Your task to perform on an android device: all mails in gmail Image 0: 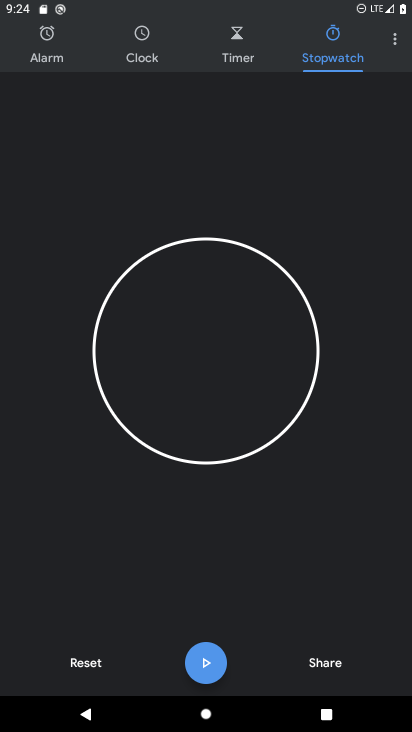
Step 0: press home button
Your task to perform on an android device: all mails in gmail Image 1: 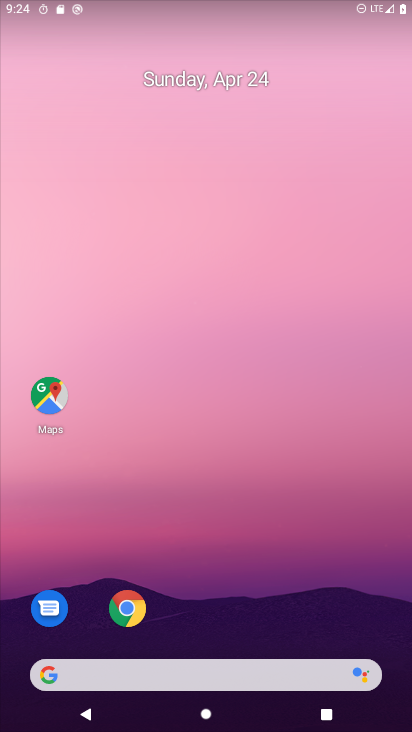
Step 1: drag from (224, 540) to (213, 67)
Your task to perform on an android device: all mails in gmail Image 2: 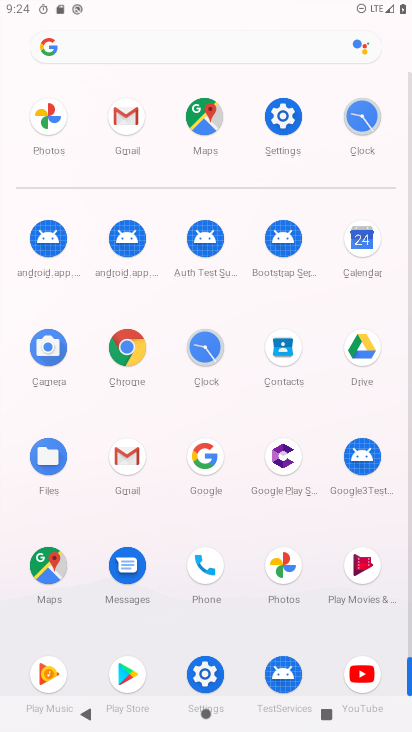
Step 2: click (130, 112)
Your task to perform on an android device: all mails in gmail Image 3: 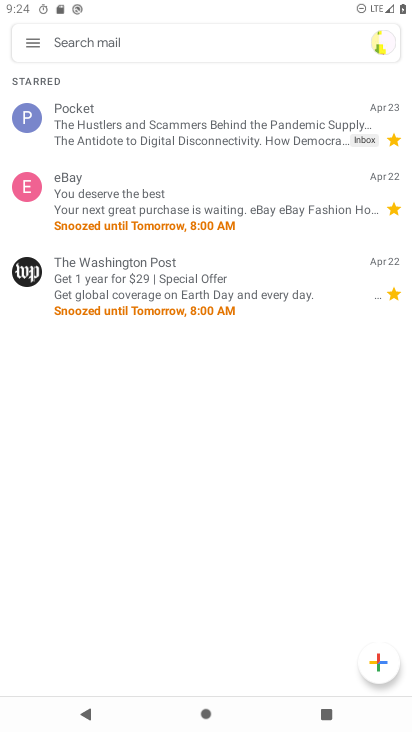
Step 3: click (34, 41)
Your task to perform on an android device: all mails in gmail Image 4: 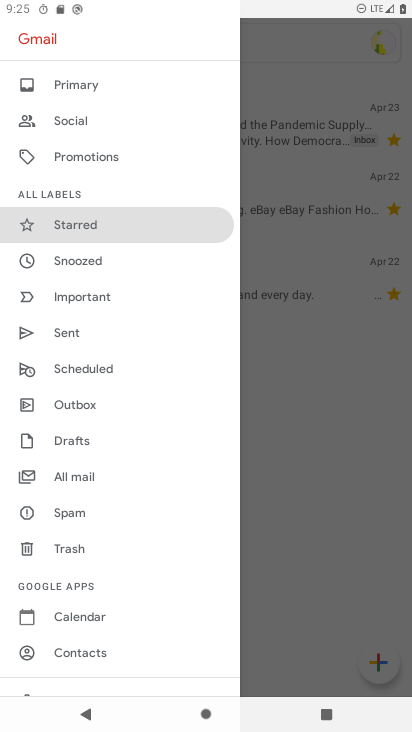
Step 4: click (100, 475)
Your task to perform on an android device: all mails in gmail Image 5: 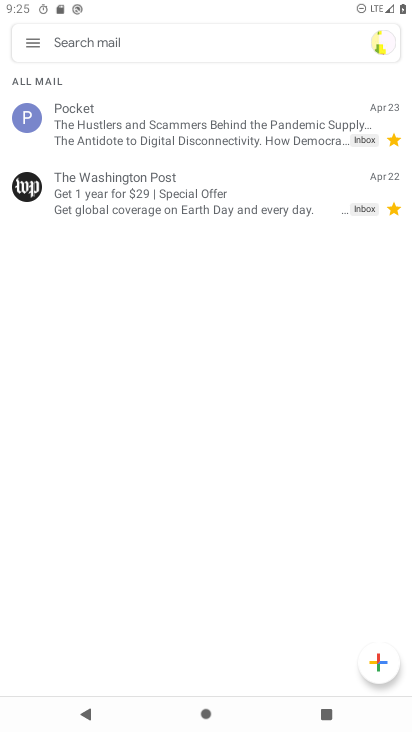
Step 5: task complete